Your task to perform on an android device: Go to Yahoo.com Image 0: 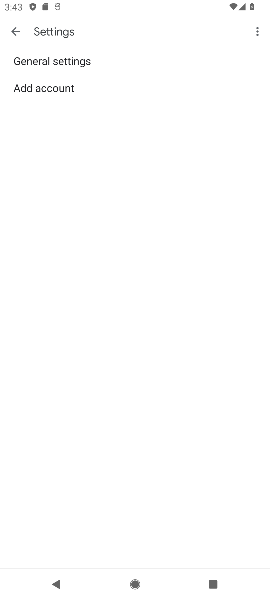
Step 0: press home button
Your task to perform on an android device: Go to Yahoo.com Image 1: 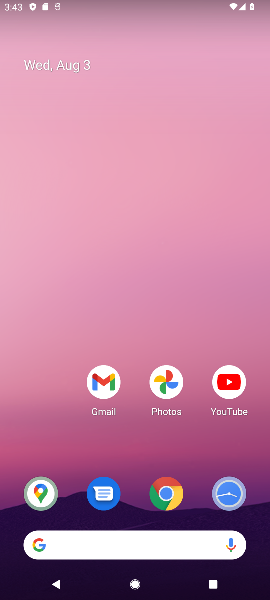
Step 1: drag from (92, 477) to (24, 31)
Your task to perform on an android device: Go to Yahoo.com Image 2: 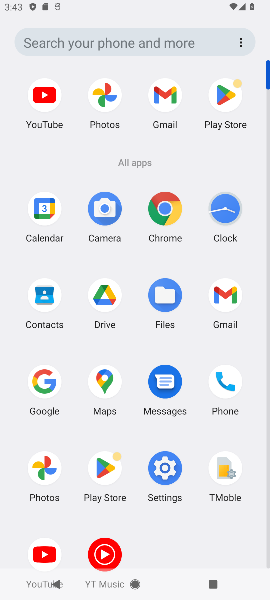
Step 2: click (159, 213)
Your task to perform on an android device: Go to Yahoo.com Image 3: 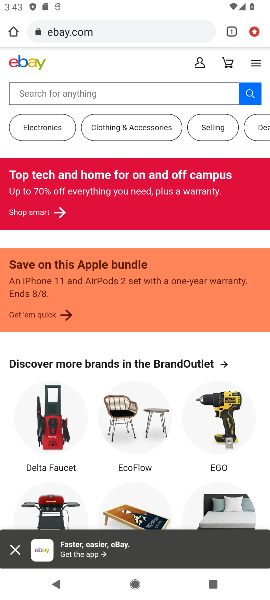
Step 3: press back button
Your task to perform on an android device: Go to Yahoo.com Image 4: 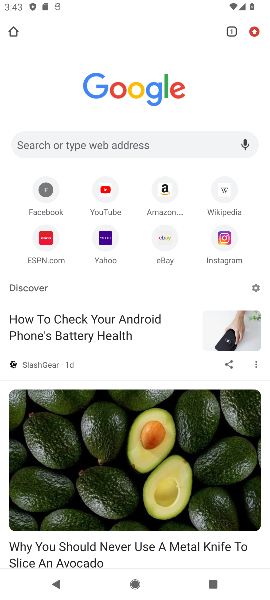
Step 4: click (111, 247)
Your task to perform on an android device: Go to Yahoo.com Image 5: 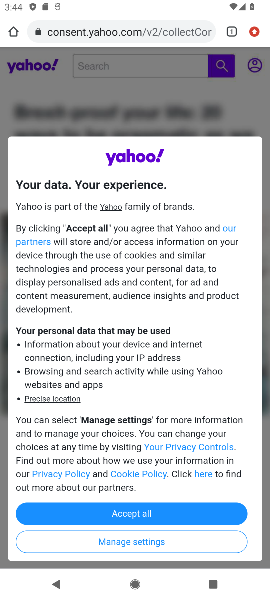
Step 5: task complete